Your task to perform on an android device: Go to eBay Image 0: 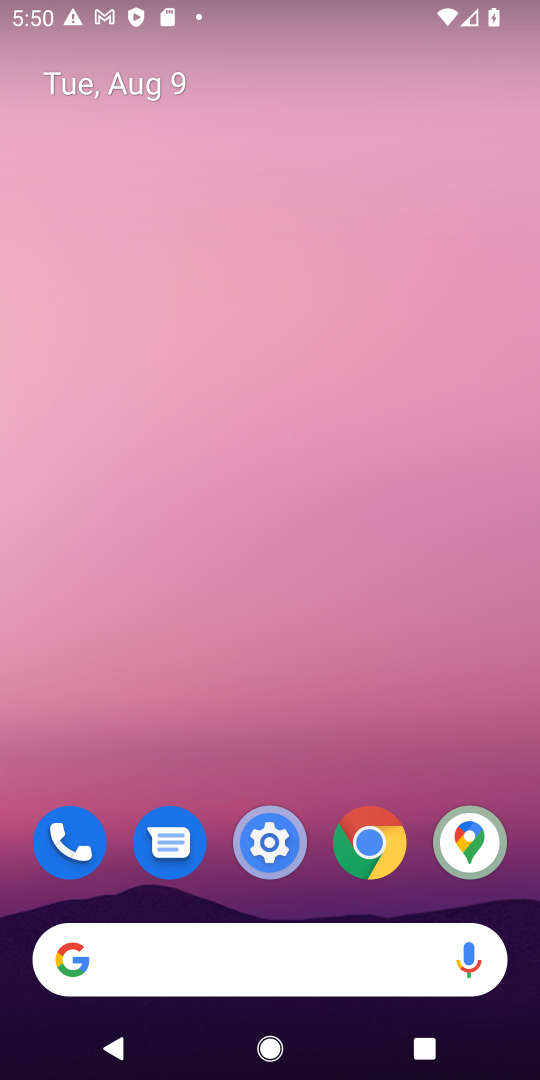
Step 0: drag from (343, 834) to (362, 176)
Your task to perform on an android device: Go to eBay Image 1: 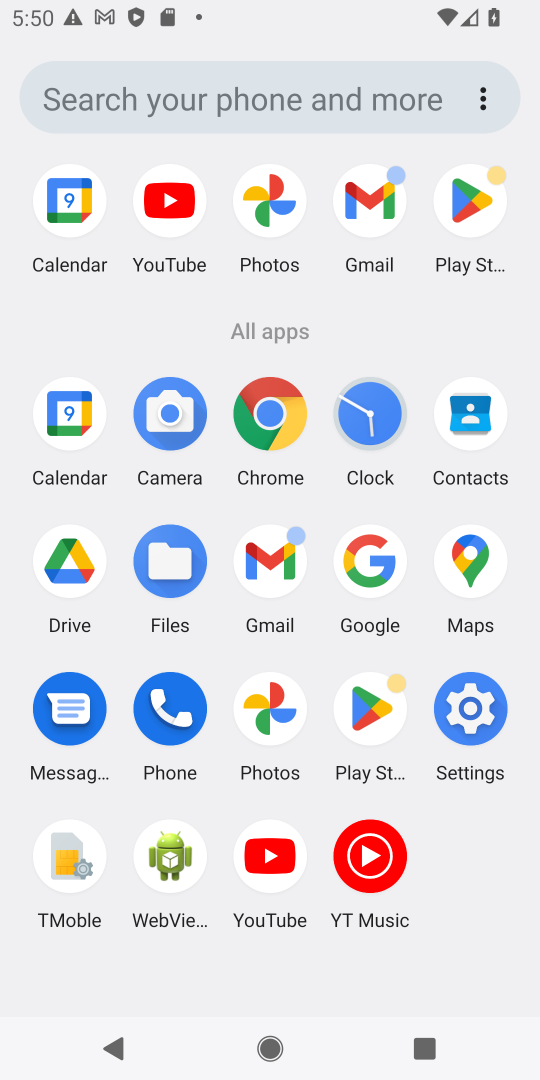
Step 1: click (287, 438)
Your task to perform on an android device: Go to eBay Image 2: 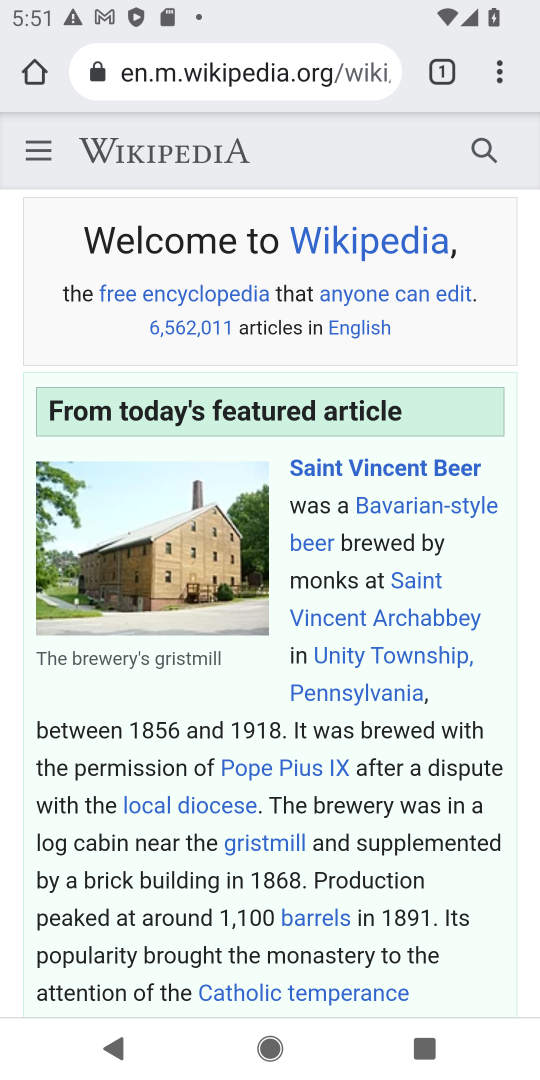
Step 2: click (189, 67)
Your task to perform on an android device: Go to eBay Image 3: 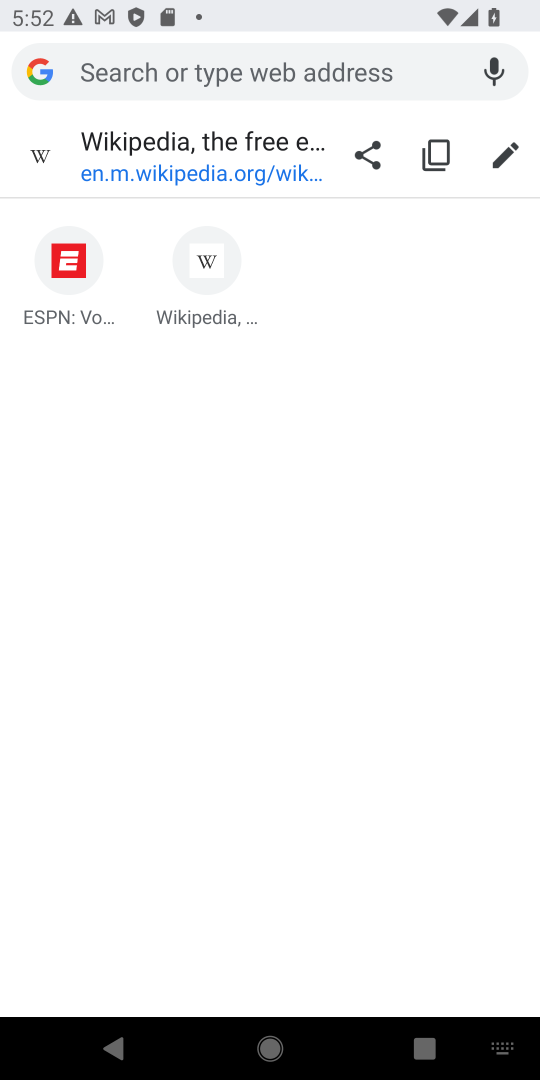
Step 3: type "eBay"
Your task to perform on an android device: Go to eBay Image 4: 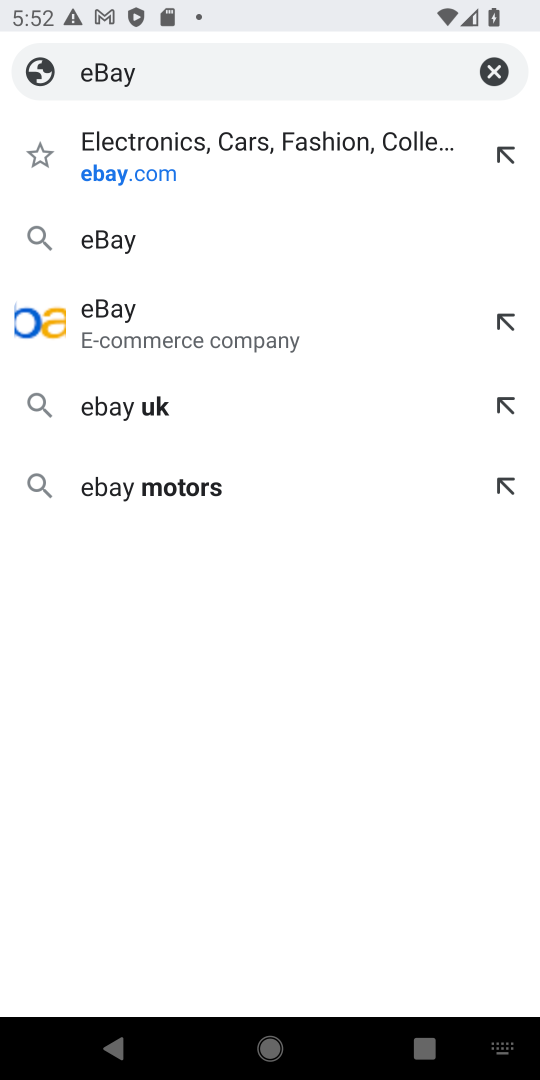
Step 4: click (140, 183)
Your task to perform on an android device: Go to eBay Image 5: 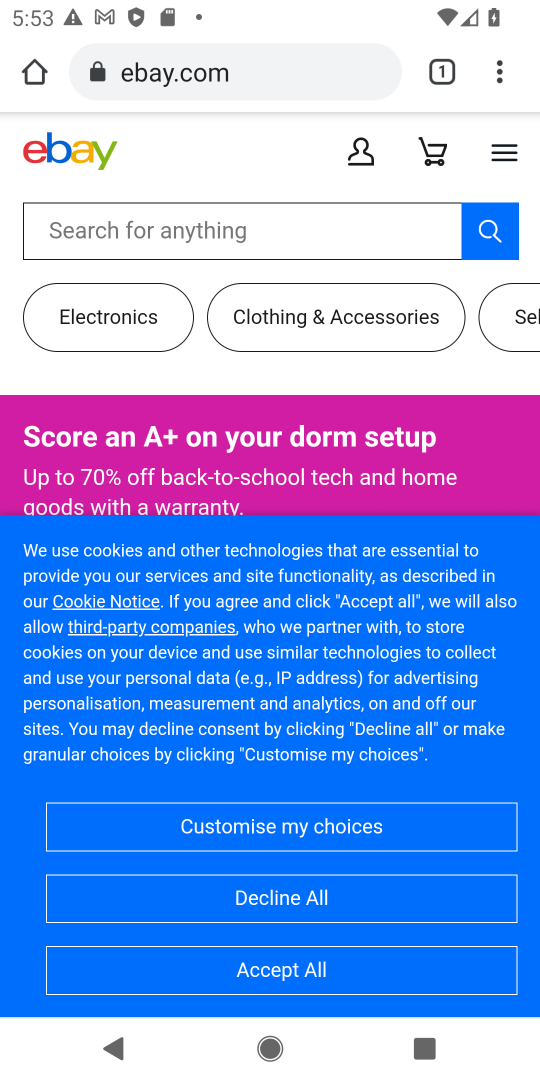
Step 5: task complete